Your task to perform on an android device: make emails show in primary in the gmail app Image 0: 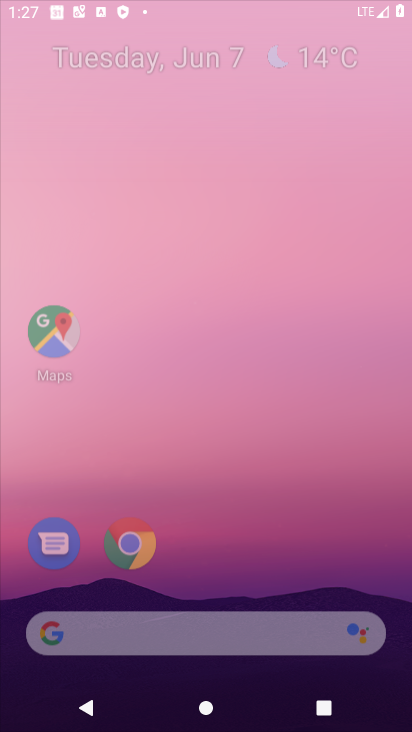
Step 0: click (262, 19)
Your task to perform on an android device: make emails show in primary in the gmail app Image 1: 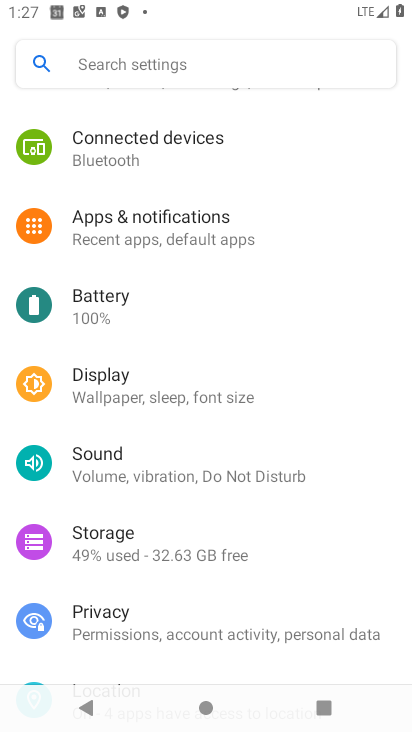
Step 1: press home button
Your task to perform on an android device: make emails show in primary in the gmail app Image 2: 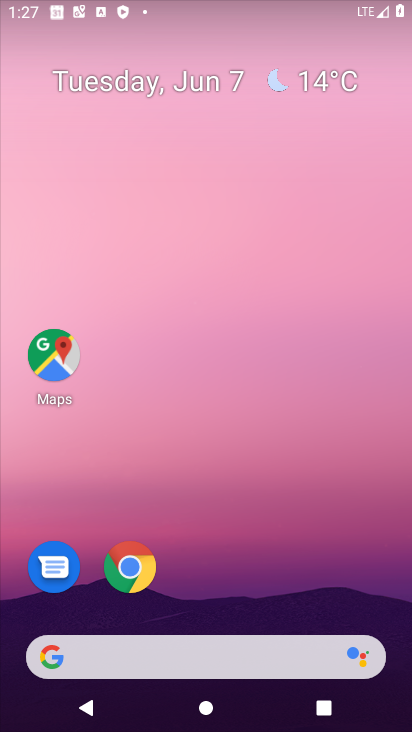
Step 2: drag from (298, 627) to (320, 99)
Your task to perform on an android device: make emails show in primary in the gmail app Image 3: 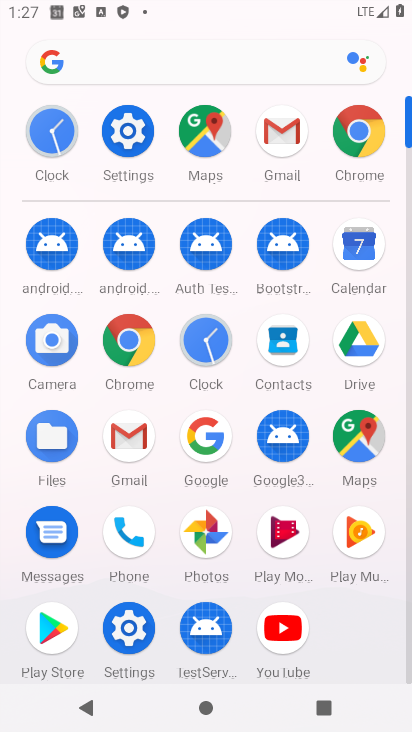
Step 3: click (128, 445)
Your task to perform on an android device: make emails show in primary in the gmail app Image 4: 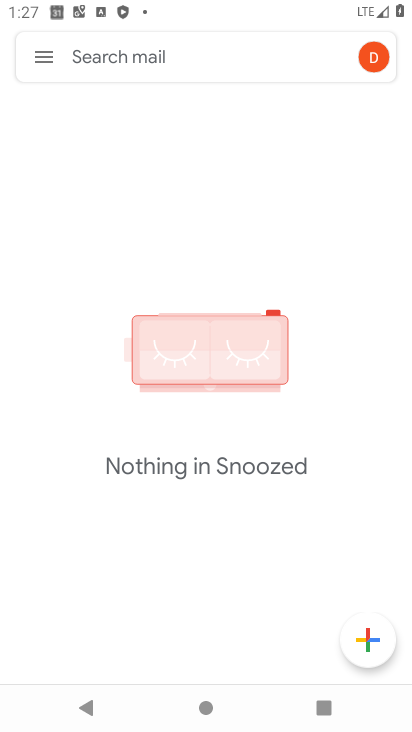
Step 4: click (48, 52)
Your task to perform on an android device: make emails show in primary in the gmail app Image 5: 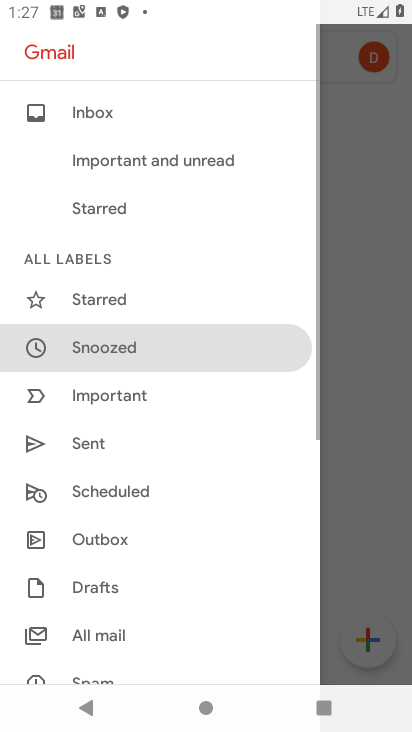
Step 5: drag from (154, 630) to (142, 80)
Your task to perform on an android device: make emails show in primary in the gmail app Image 6: 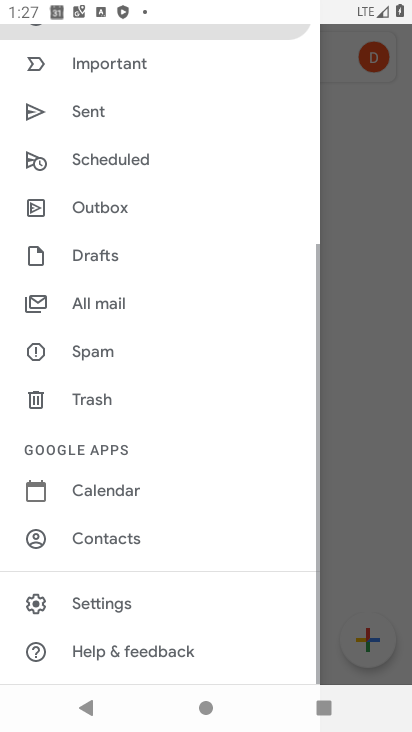
Step 6: click (143, 604)
Your task to perform on an android device: make emails show in primary in the gmail app Image 7: 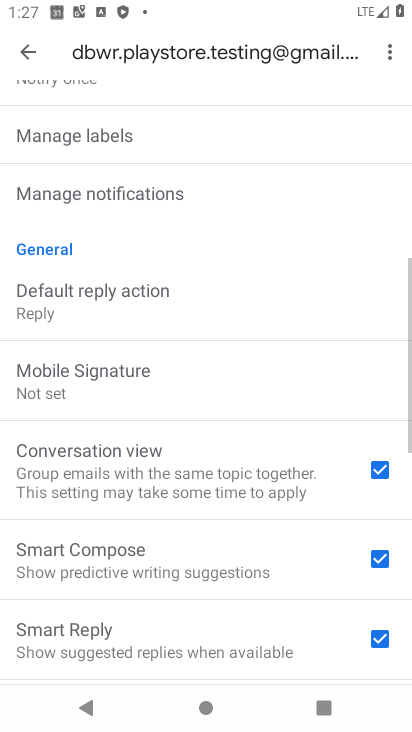
Step 7: drag from (129, 232) to (193, 649)
Your task to perform on an android device: make emails show in primary in the gmail app Image 8: 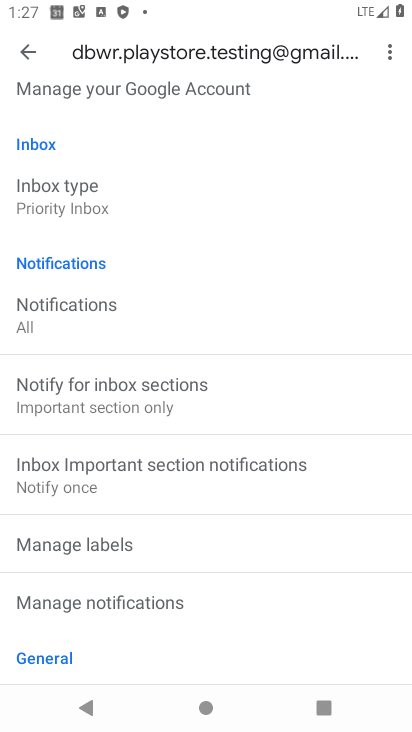
Step 8: click (83, 198)
Your task to perform on an android device: make emails show in primary in the gmail app Image 9: 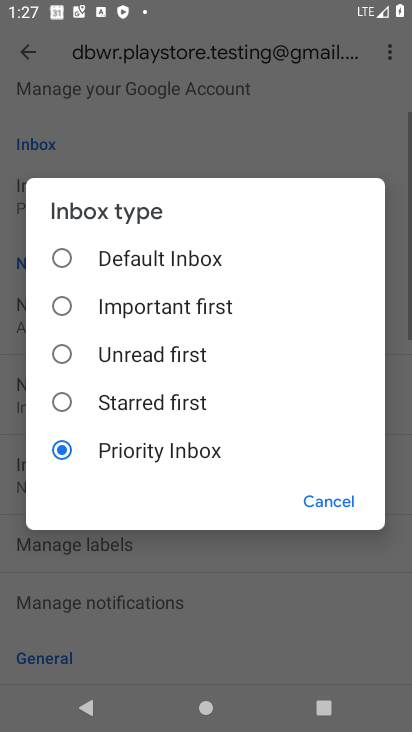
Step 9: click (113, 257)
Your task to perform on an android device: make emails show in primary in the gmail app Image 10: 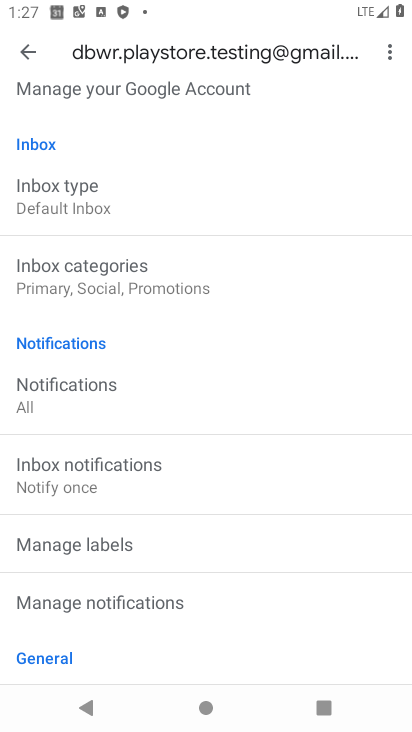
Step 10: press back button
Your task to perform on an android device: make emails show in primary in the gmail app Image 11: 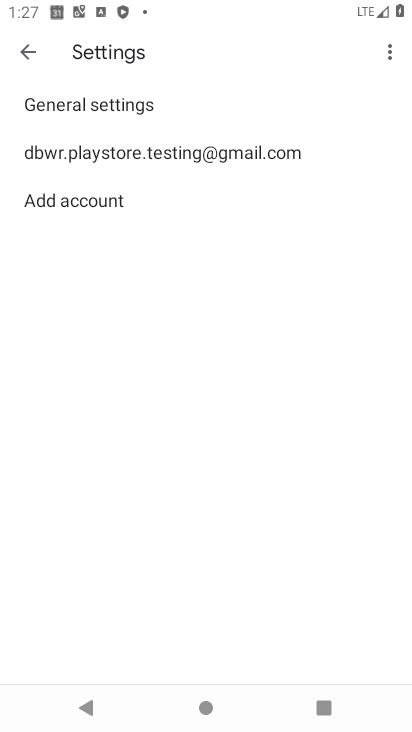
Step 11: press back button
Your task to perform on an android device: make emails show in primary in the gmail app Image 12: 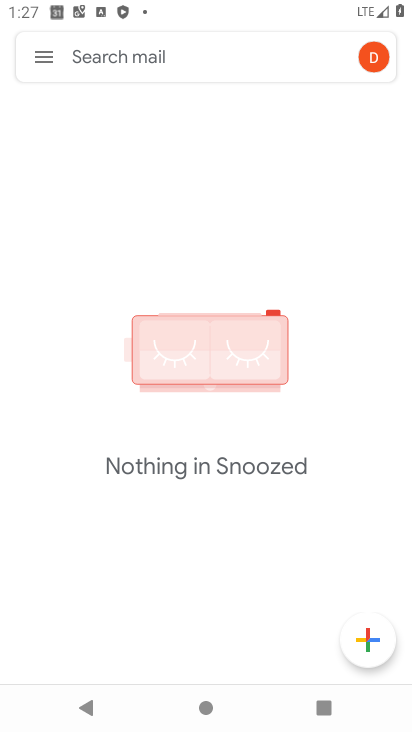
Step 12: click (39, 61)
Your task to perform on an android device: make emails show in primary in the gmail app Image 13: 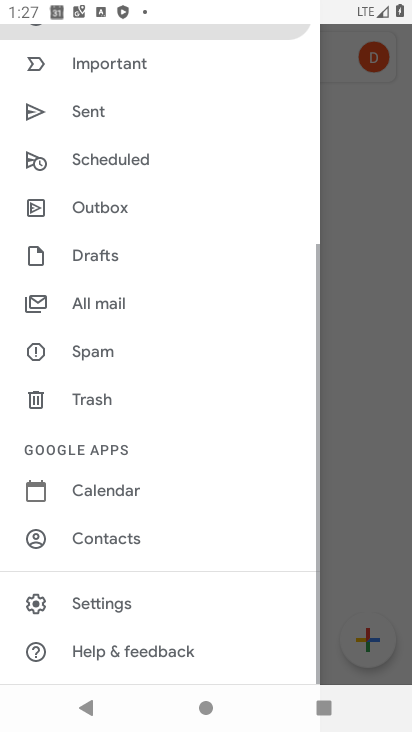
Step 13: task complete